Your task to perform on an android device: Open Google Image 0: 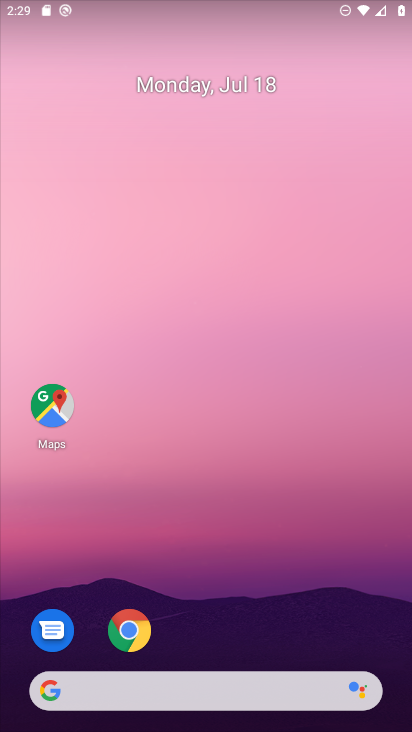
Step 0: press home button
Your task to perform on an android device: Open Google Image 1: 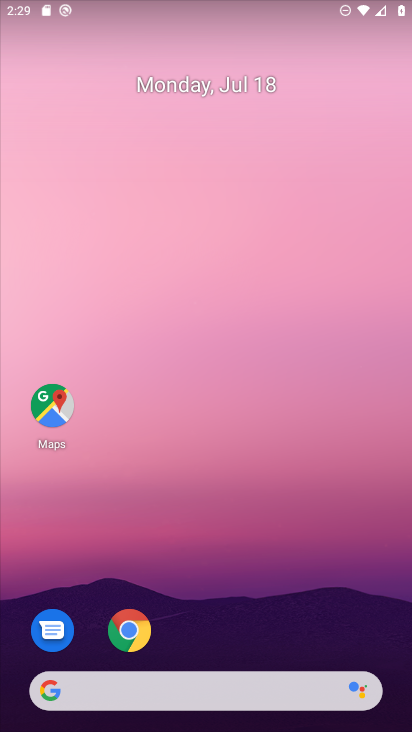
Step 1: click (43, 691)
Your task to perform on an android device: Open Google Image 2: 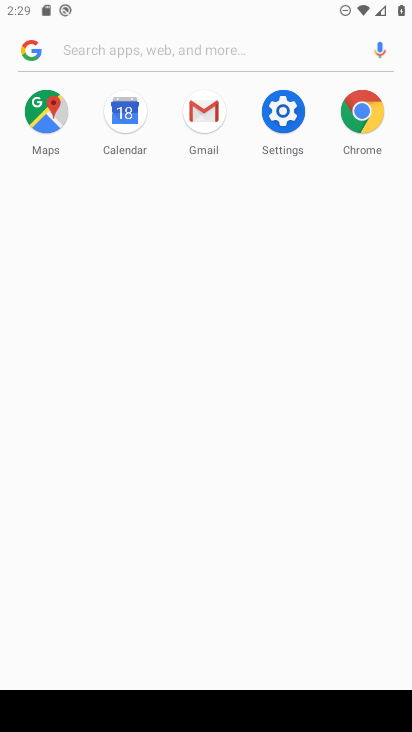
Step 2: task complete